Your task to perform on an android device: Go to battery settings Image 0: 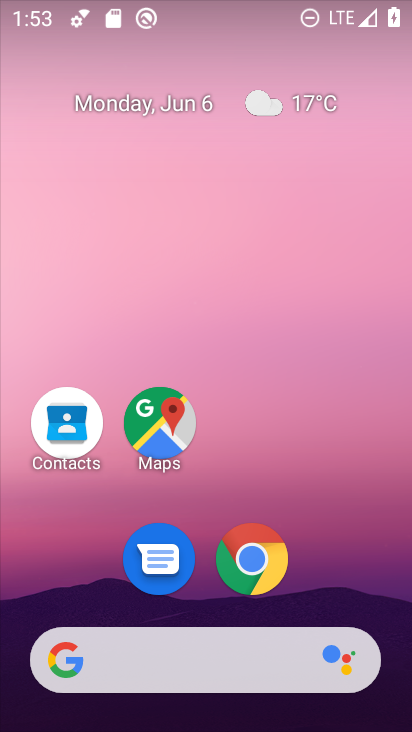
Step 0: drag from (254, 620) to (261, 77)
Your task to perform on an android device: Go to battery settings Image 1: 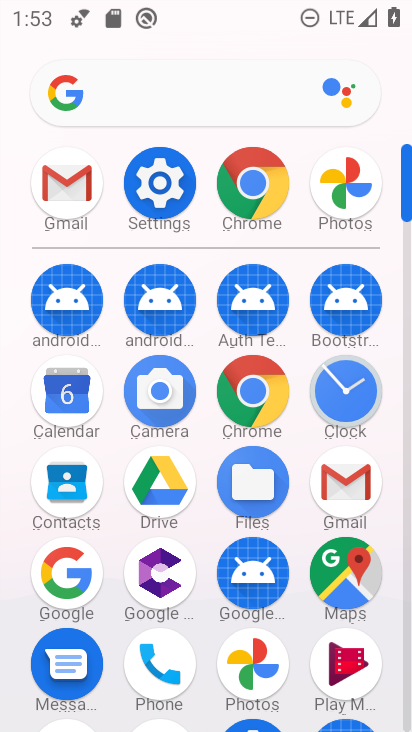
Step 1: click (162, 181)
Your task to perform on an android device: Go to battery settings Image 2: 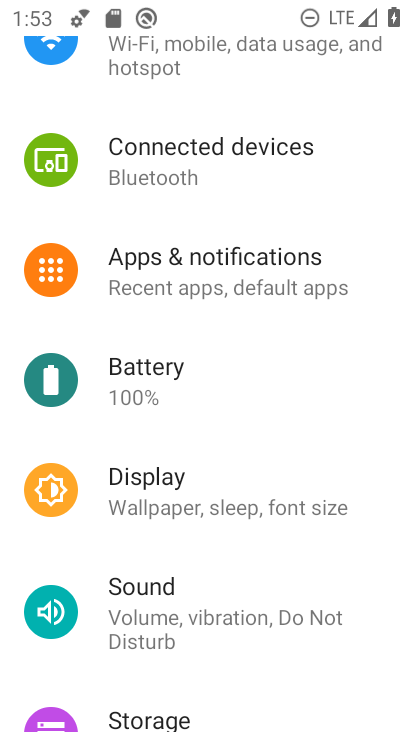
Step 2: click (192, 378)
Your task to perform on an android device: Go to battery settings Image 3: 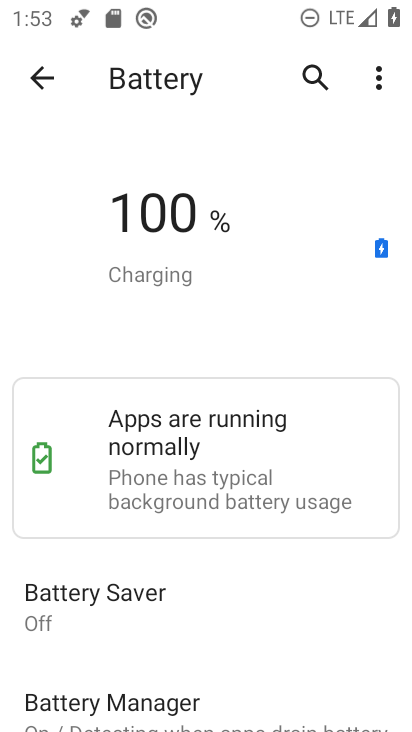
Step 3: task complete